Your task to perform on an android device: toggle priority inbox in the gmail app Image 0: 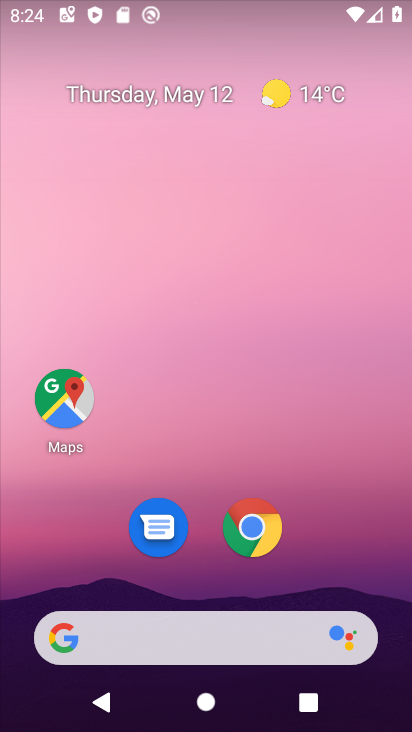
Step 0: drag from (343, 551) to (330, 201)
Your task to perform on an android device: toggle priority inbox in the gmail app Image 1: 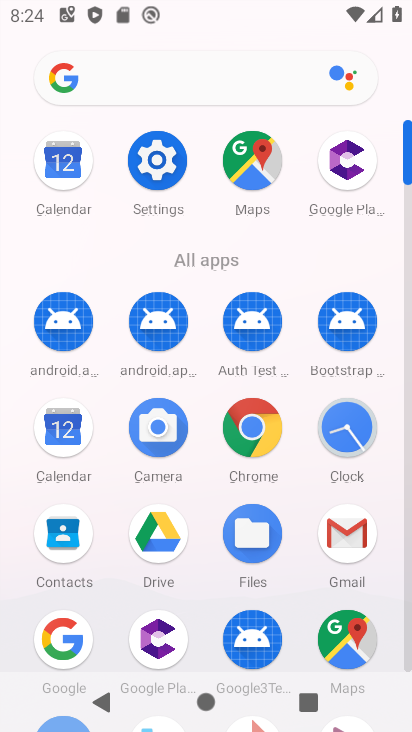
Step 1: click (342, 520)
Your task to perform on an android device: toggle priority inbox in the gmail app Image 2: 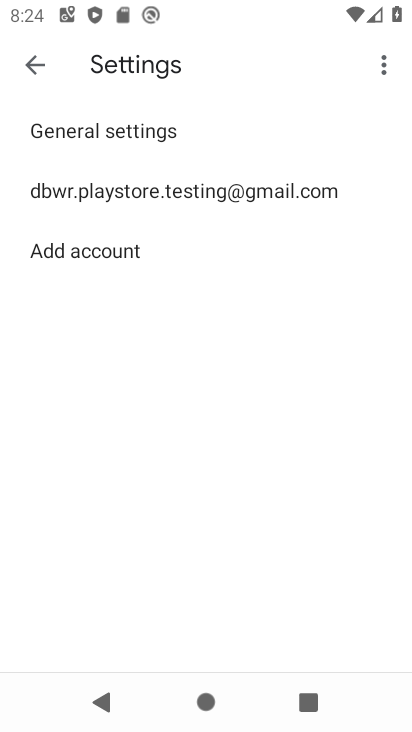
Step 2: click (184, 197)
Your task to perform on an android device: toggle priority inbox in the gmail app Image 3: 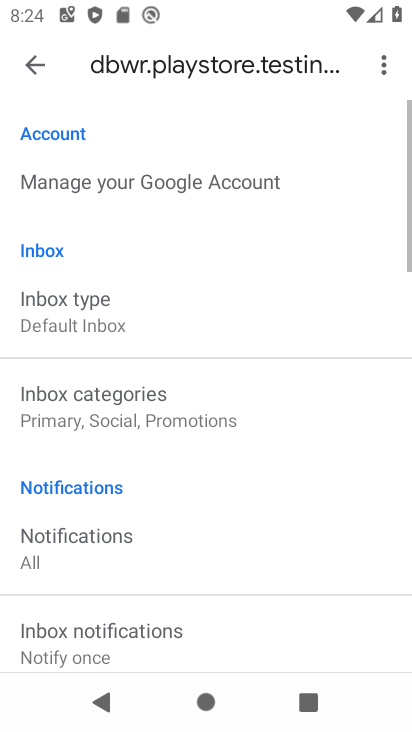
Step 3: click (203, 308)
Your task to perform on an android device: toggle priority inbox in the gmail app Image 4: 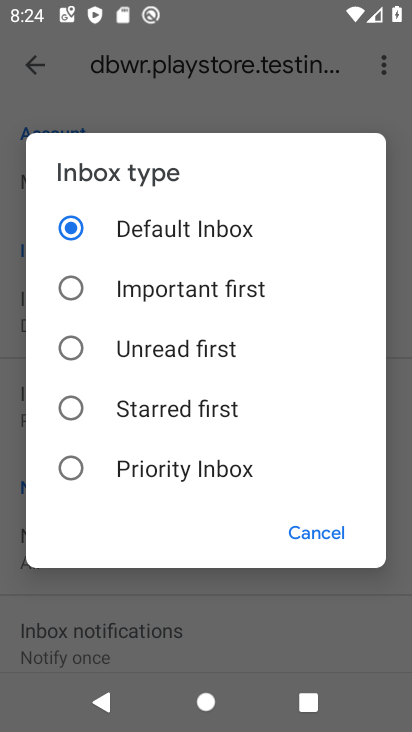
Step 4: click (209, 481)
Your task to perform on an android device: toggle priority inbox in the gmail app Image 5: 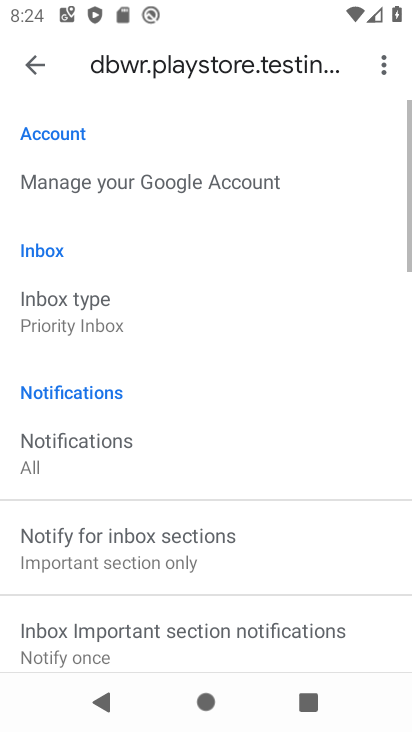
Step 5: task complete